Your task to perform on an android device: Search for Mexican restaurants on Maps Image 0: 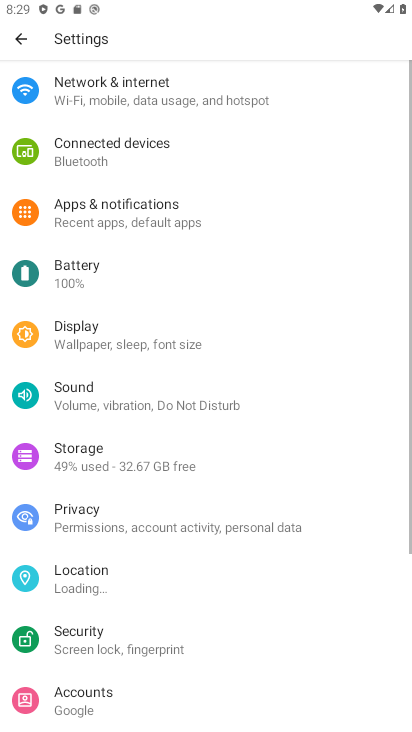
Step 0: press home button
Your task to perform on an android device: Search for Mexican restaurants on Maps Image 1: 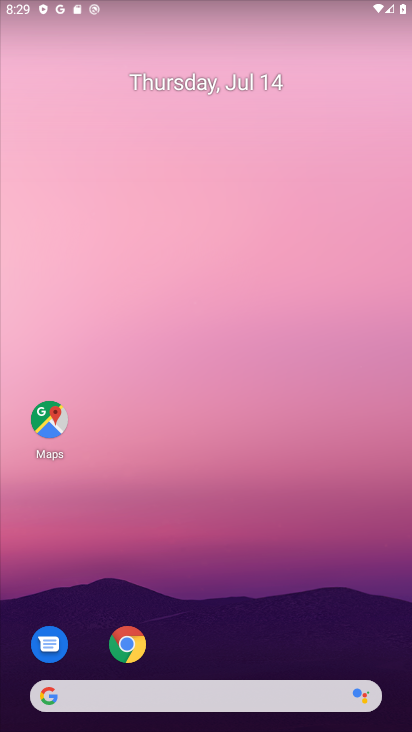
Step 1: drag from (198, 673) to (303, 66)
Your task to perform on an android device: Search for Mexican restaurants on Maps Image 2: 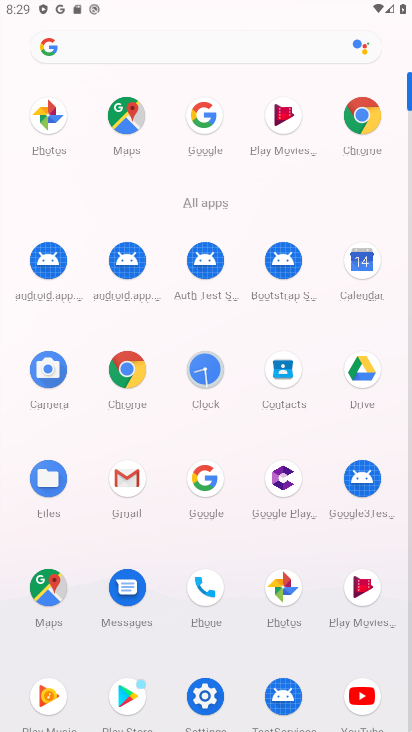
Step 2: click (58, 586)
Your task to perform on an android device: Search for Mexican restaurants on Maps Image 3: 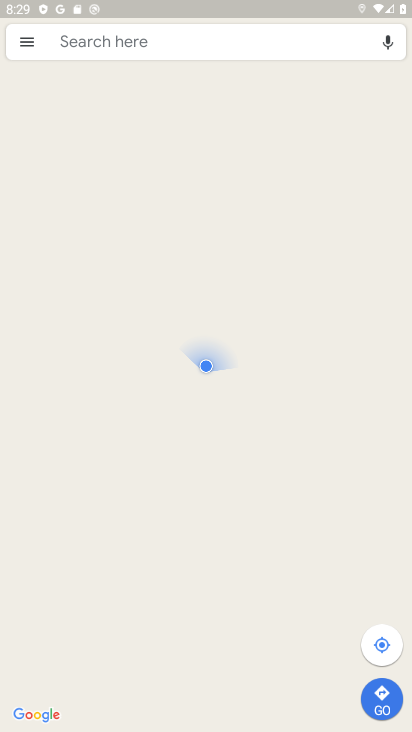
Step 3: click (150, 58)
Your task to perform on an android device: Search for Mexican restaurants on Maps Image 4: 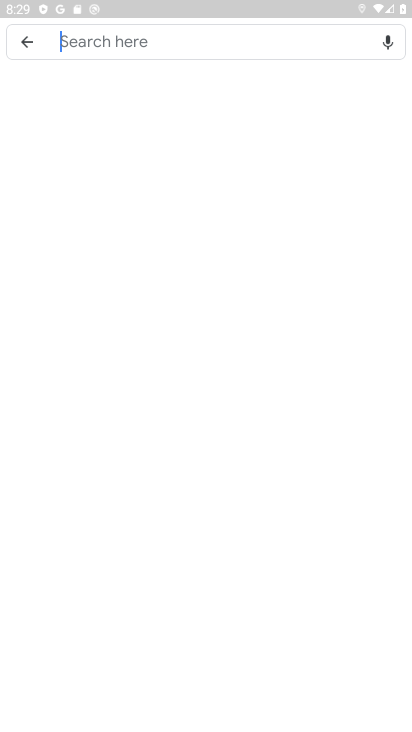
Step 4: click (296, 57)
Your task to perform on an android device: Search for Mexican restaurants on Maps Image 5: 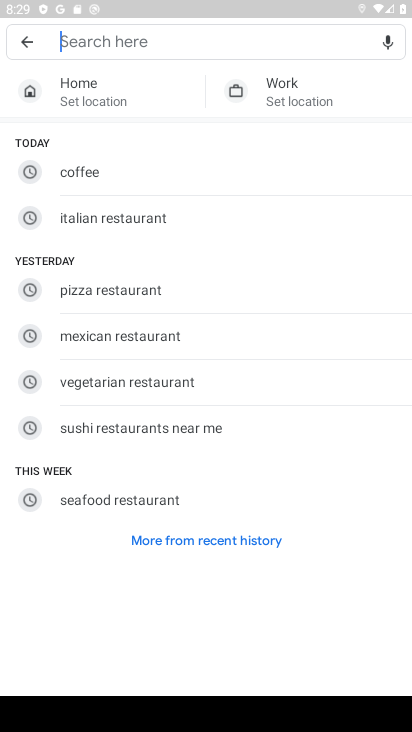
Step 5: type "Mexican restaurants"
Your task to perform on an android device: Search for Mexican restaurants on Maps Image 6: 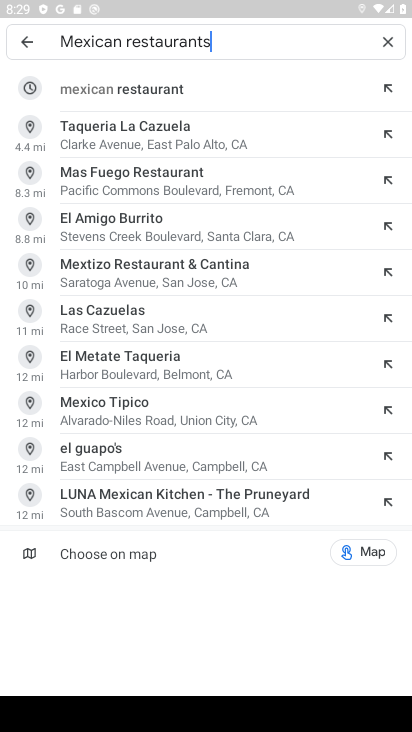
Step 6: click (266, 89)
Your task to perform on an android device: Search for Mexican restaurants on Maps Image 7: 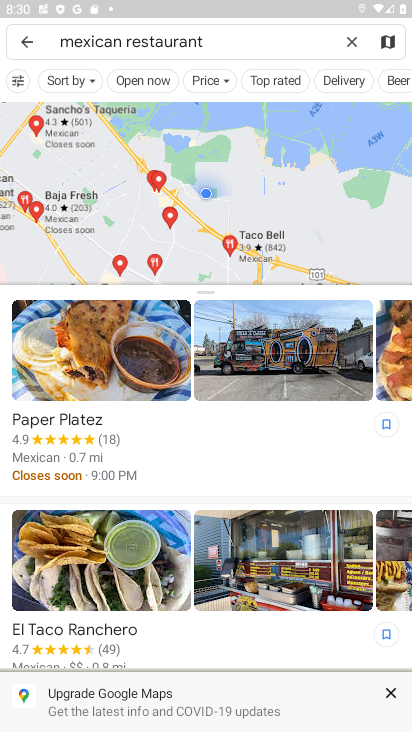
Step 7: task complete